Your task to perform on an android device: move an email to a new category in the gmail app Image 0: 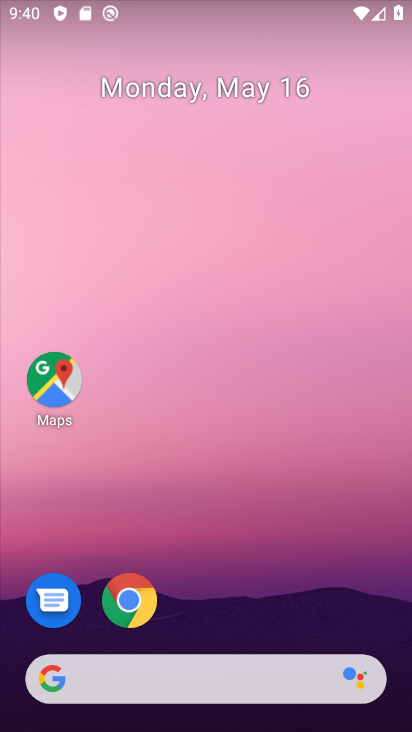
Step 0: drag from (202, 642) to (317, 124)
Your task to perform on an android device: move an email to a new category in the gmail app Image 1: 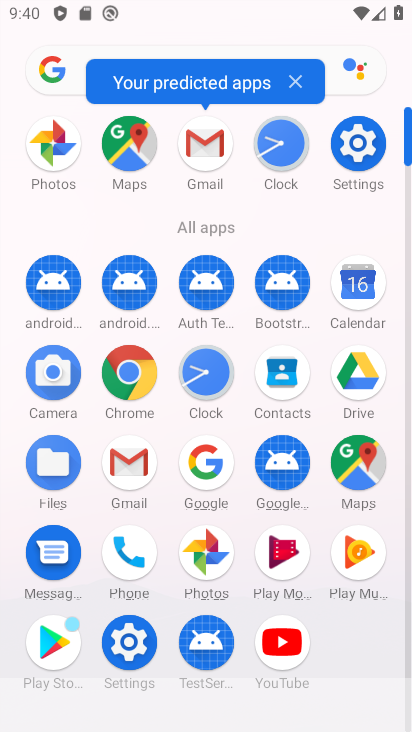
Step 1: click (142, 480)
Your task to perform on an android device: move an email to a new category in the gmail app Image 2: 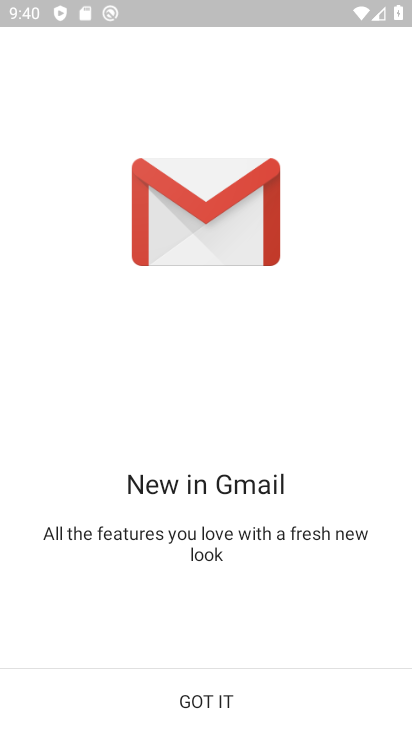
Step 2: click (202, 707)
Your task to perform on an android device: move an email to a new category in the gmail app Image 3: 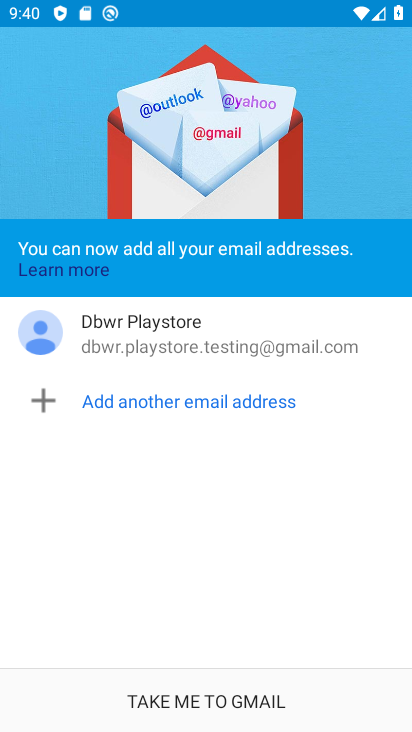
Step 3: click (251, 709)
Your task to perform on an android device: move an email to a new category in the gmail app Image 4: 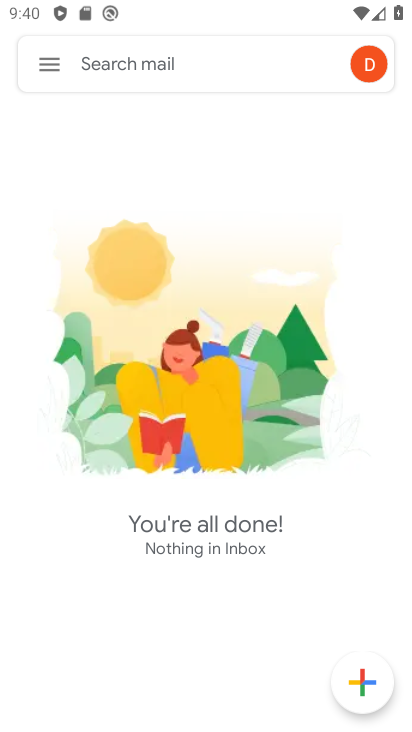
Step 4: click (68, 65)
Your task to perform on an android device: move an email to a new category in the gmail app Image 5: 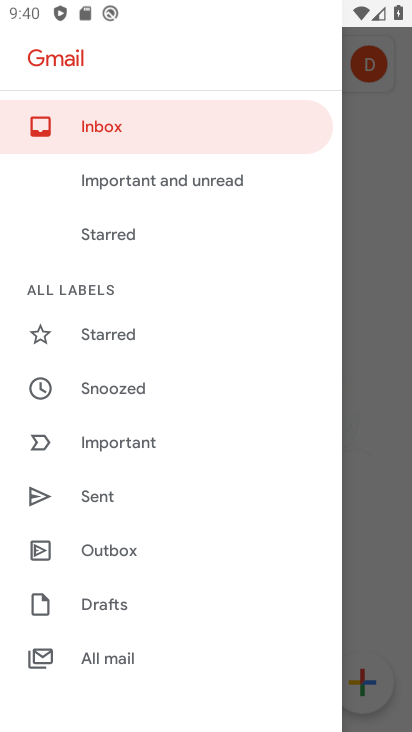
Step 5: click (148, 671)
Your task to perform on an android device: move an email to a new category in the gmail app Image 6: 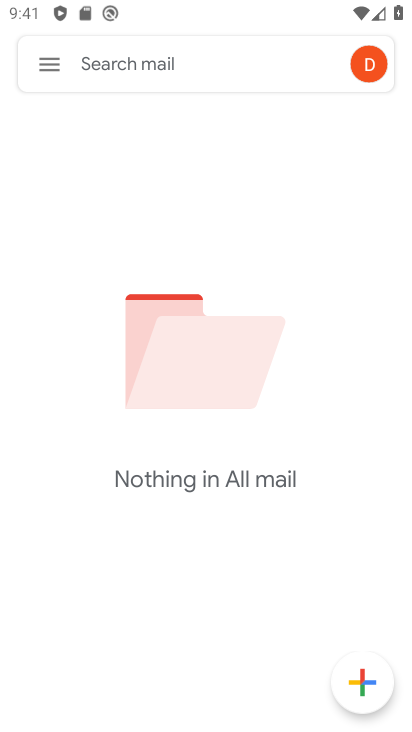
Step 6: task complete